Your task to perform on an android device: Go to ESPN.com Image 0: 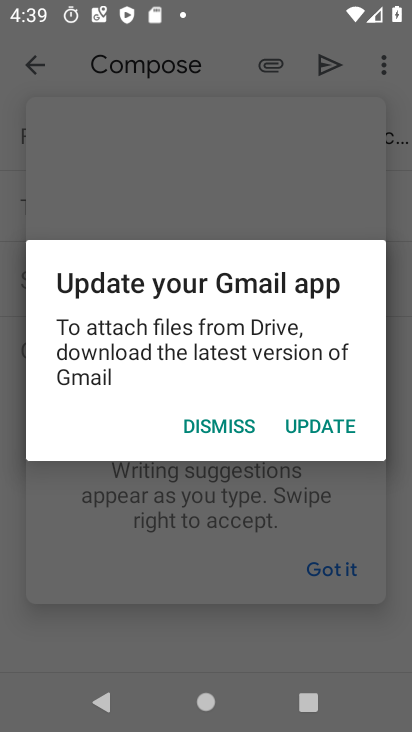
Step 0: press home button
Your task to perform on an android device: Go to ESPN.com Image 1: 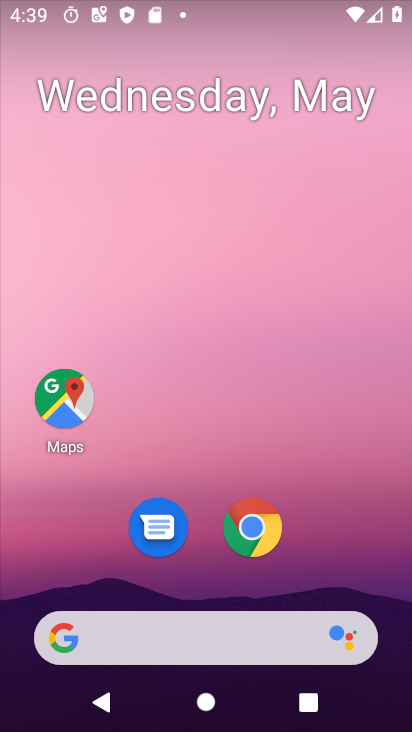
Step 1: click (249, 535)
Your task to perform on an android device: Go to ESPN.com Image 2: 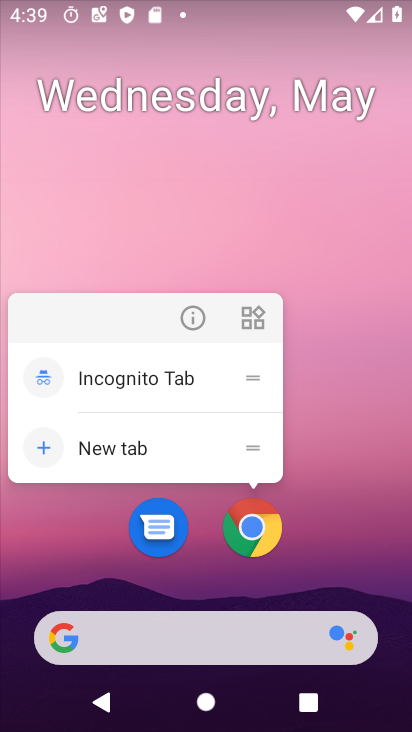
Step 2: drag from (352, 573) to (394, 91)
Your task to perform on an android device: Go to ESPN.com Image 3: 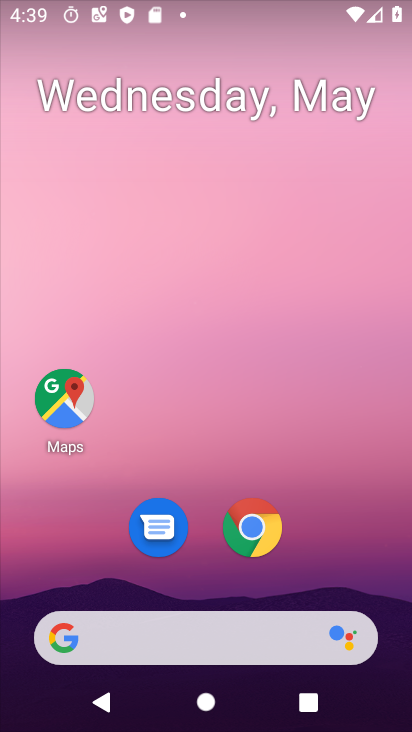
Step 3: drag from (324, 388) to (338, 70)
Your task to perform on an android device: Go to ESPN.com Image 4: 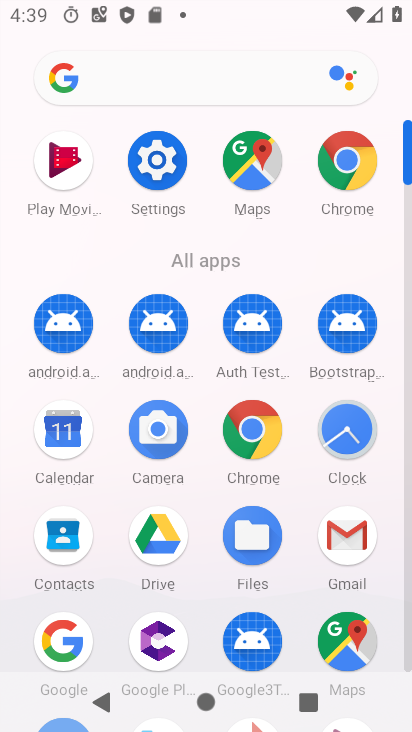
Step 4: click (344, 160)
Your task to perform on an android device: Go to ESPN.com Image 5: 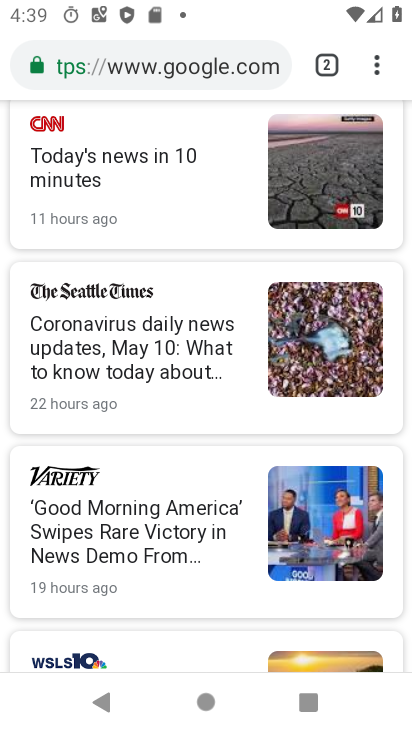
Step 5: click (123, 71)
Your task to perform on an android device: Go to ESPN.com Image 6: 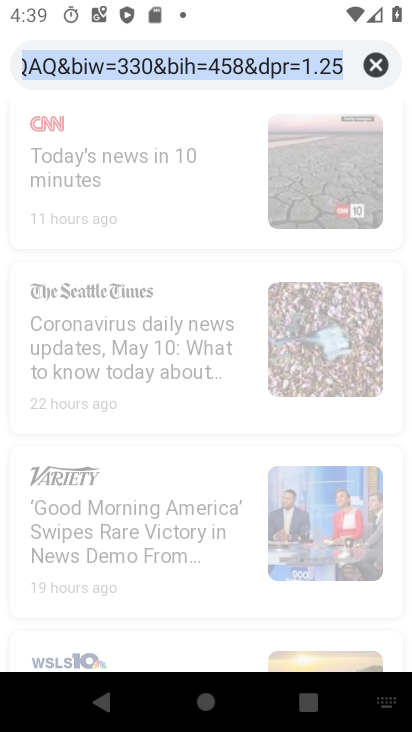
Step 6: click (374, 68)
Your task to perform on an android device: Go to ESPN.com Image 7: 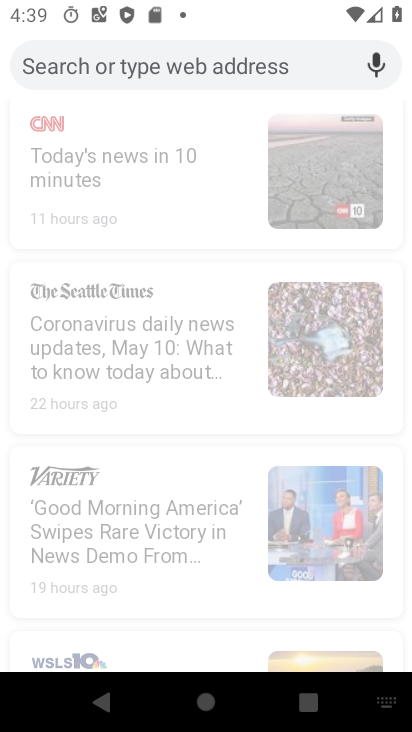
Step 7: type "ESPN.com"
Your task to perform on an android device: Go to ESPN.com Image 8: 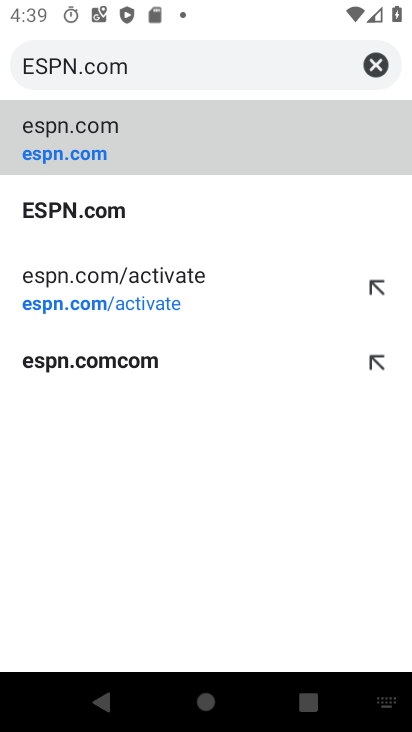
Step 8: click (55, 151)
Your task to perform on an android device: Go to ESPN.com Image 9: 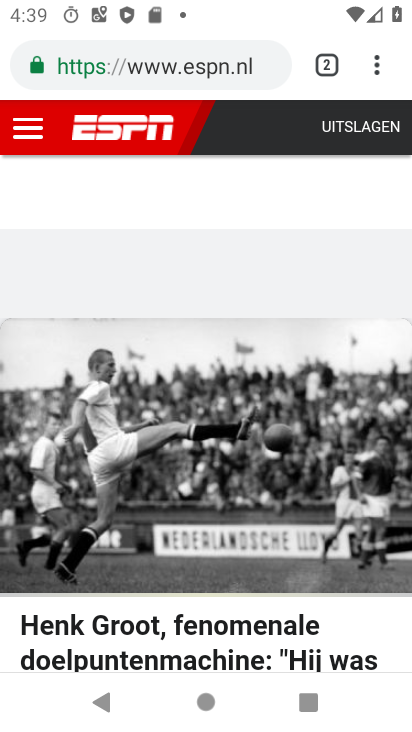
Step 9: task complete